Your task to perform on an android device: see sites visited before in the chrome app Image 0: 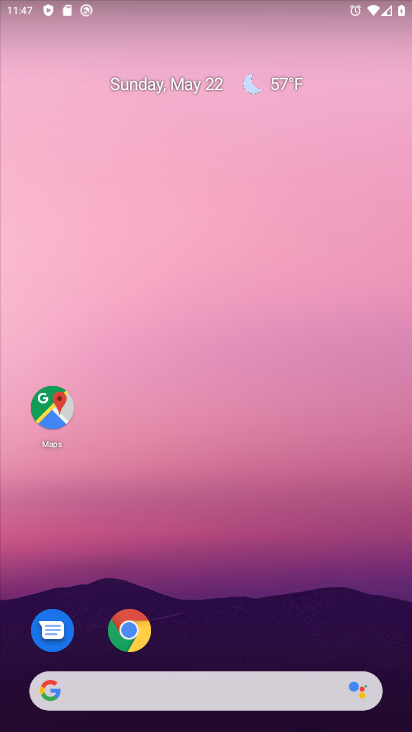
Step 0: click (123, 636)
Your task to perform on an android device: see sites visited before in the chrome app Image 1: 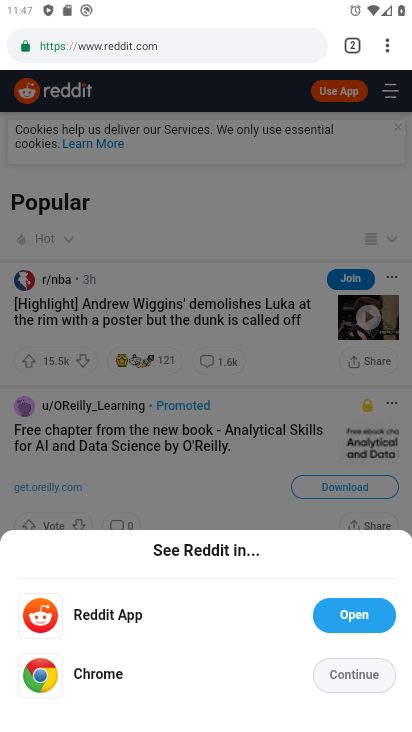
Step 1: click (386, 46)
Your task to perform on an android device: see sites visited before in the chrome app Image 2: 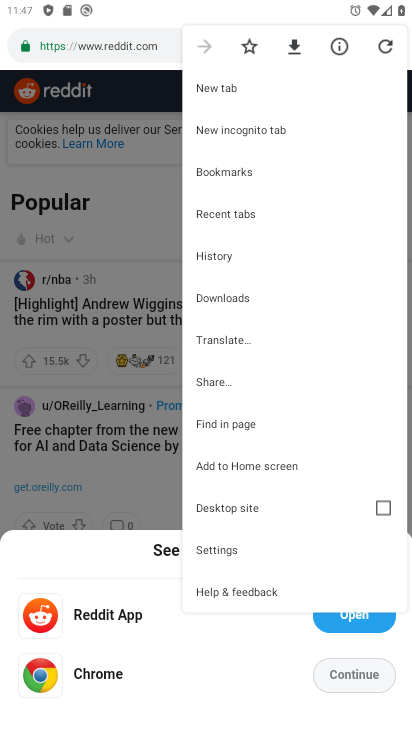
Step 2: click (231, 272)
Your task to perform on an android device: see sites visited before in the chrome app Image 3: 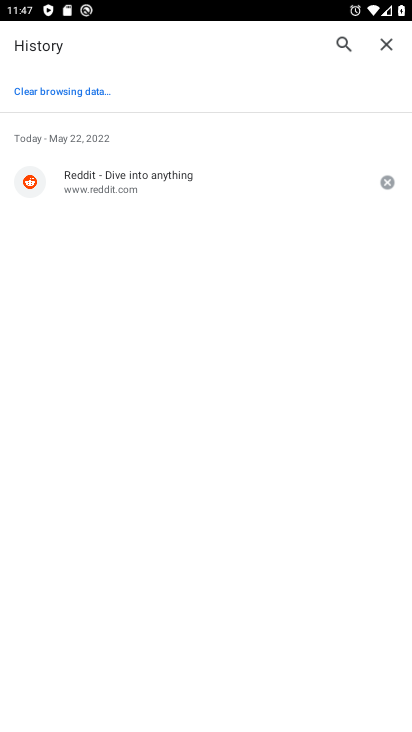
Step 3: task complete